Your task to perform on an android device: Go to display settings Image 0: 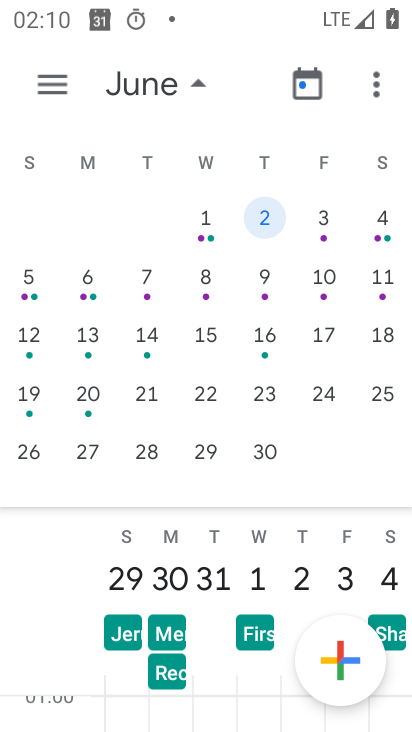
Step 0: press home button
Your task to perform on an android device: Go to display settings Image 1: 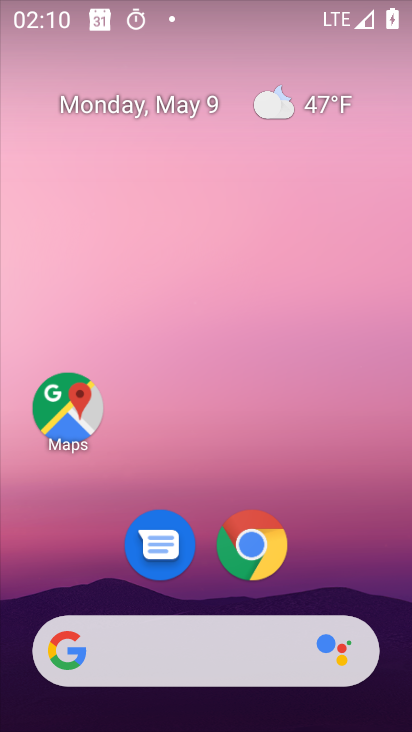
Step 1: drag from (352, 585) to (349, 7)
Your task to perform on an android device: Go to display settings Image 2: 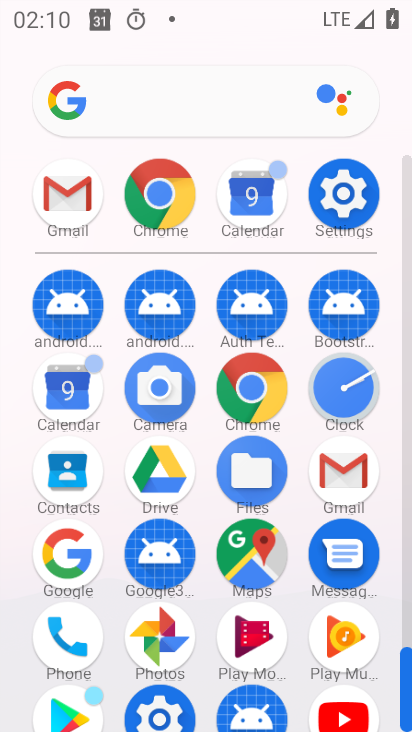
Step 2: click (342, 196)
Your task to perform on an android device: Go to display settings Image 3: 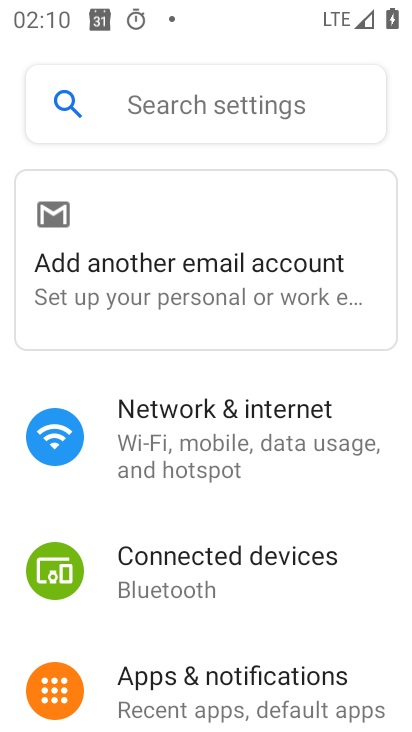
Step 3: drag from (202, 620) to (270, 60)
Your task to perform on an android device: Go to display settings Image 4: 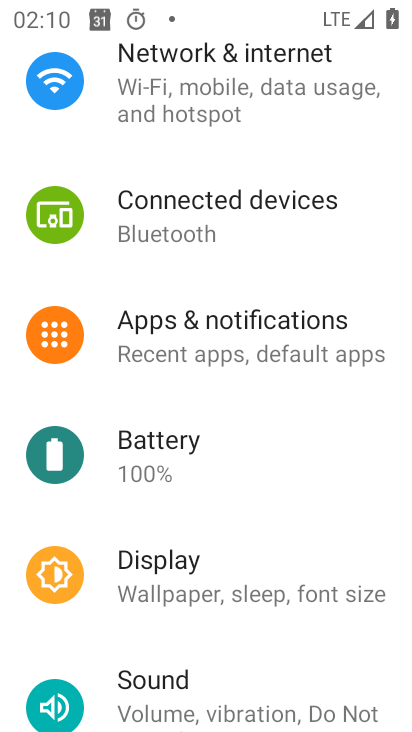
Step 4: click (234, 584)
Your task to perform on an android device: Go to display settings Image 5: 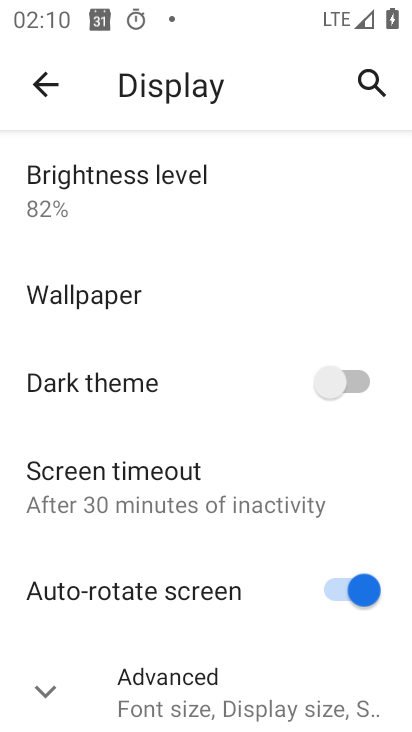
Step 5: task complete